Your task to perform on an android device: Show me popular videos on Youtube Image 0: 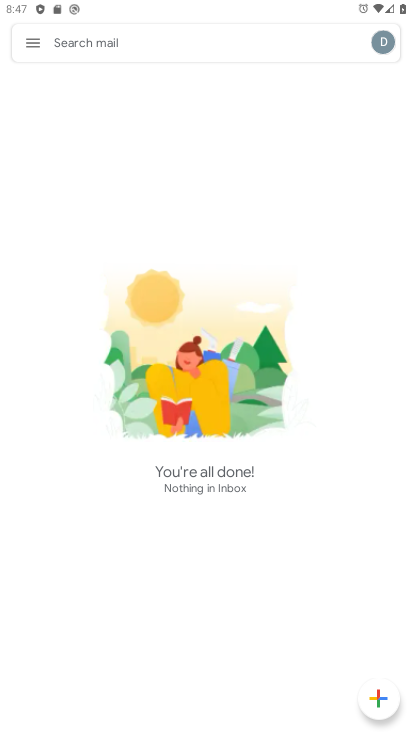
Step 0: press home button
Your task to perform on an android device: Show me popular videos on Youtube Image 1: 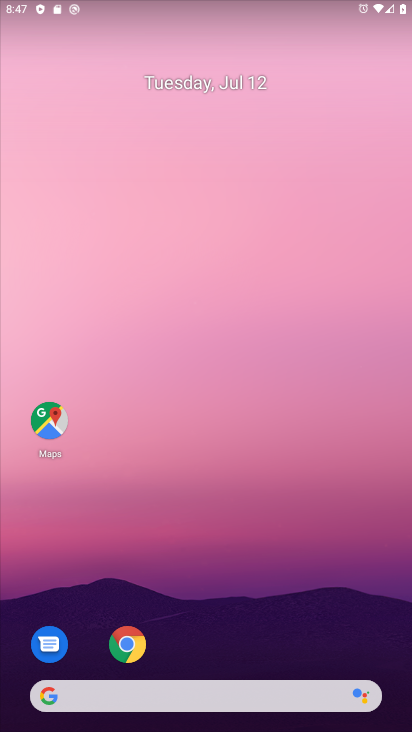
Step 1: drag from (57, 640) to (329, 7)
Your task to perform on an android device: Show me popular videos on Youtube Image 2: 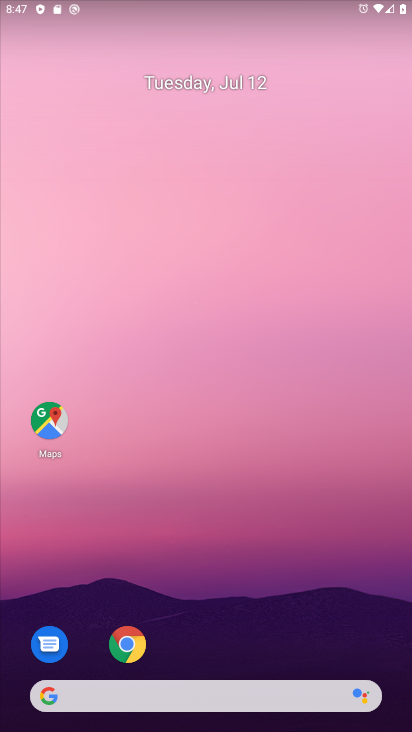
Step 2: drag from (299, 221) to (355, 34)
Your task to perform on an android device: Show me popular videos on Youtube Image 3: 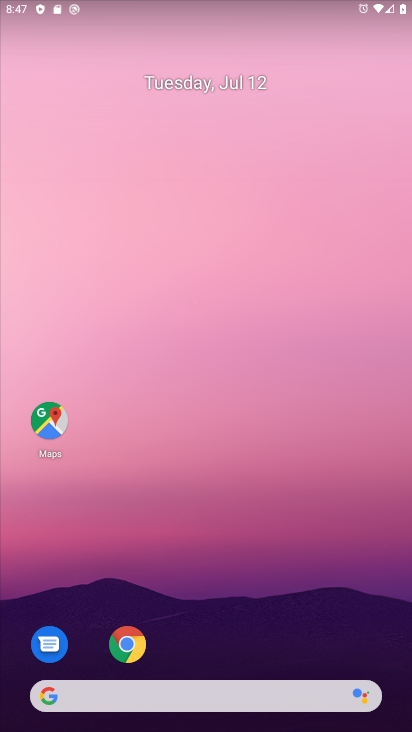
Step 3: drag from (201, 398) to (395, 18)
Your task to perform on an android device: Show me popular videos on Youtube Image 4: 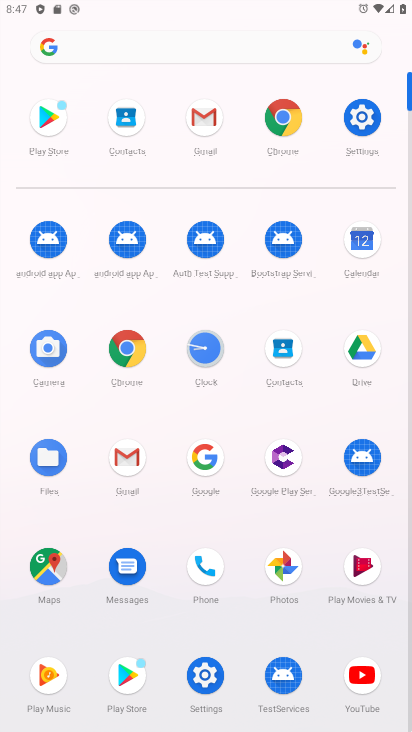
Step 4: click (343, 660)
Your task to perform on an android device: Show me popular videos on Youtube Image 5: 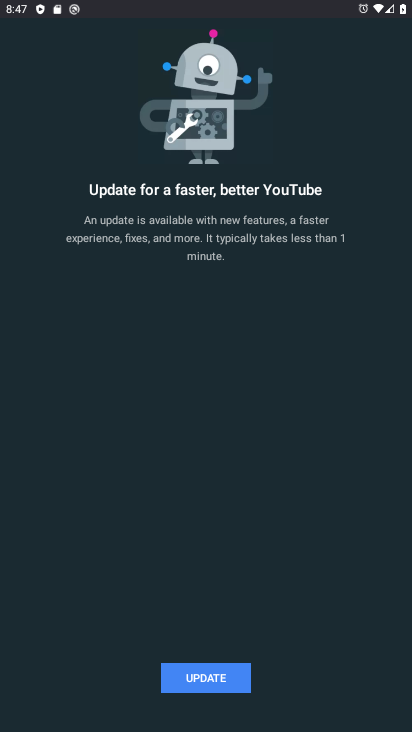
Step 5: task complete